Your task to perform on an android device: move a message to another label in the gmail app Image 0: 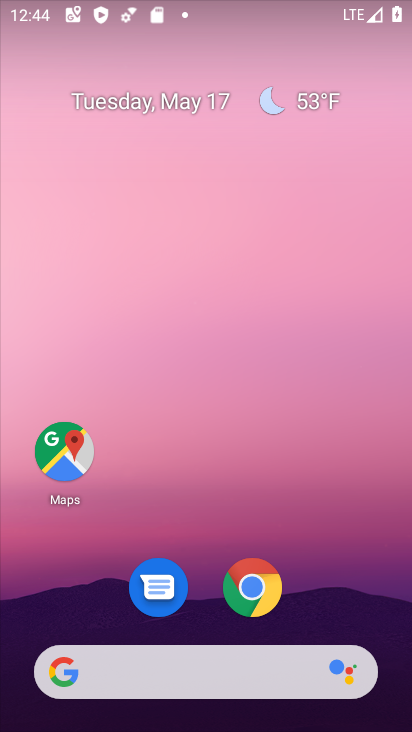
Step 0: drag from (219, 646) to (174, 19)
Your task to perform on an android device: move a message to another label in the gmail app Image 1: 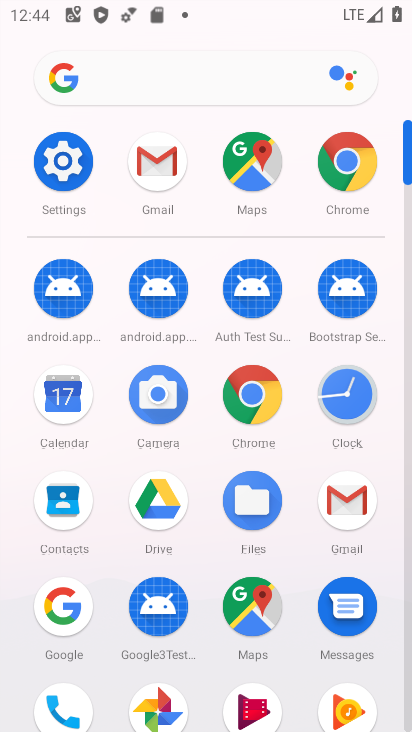
Step 1: click (343, 484)
Your task to perform on an android device: move a message to another label in the gmail app Image 2: 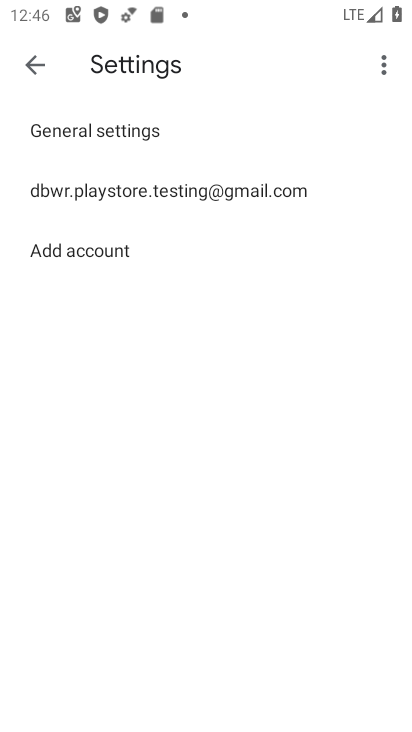
Step 2: click (35, 71)
Your task to perform on an android device: move a message to another label in the gmail app Image 3: 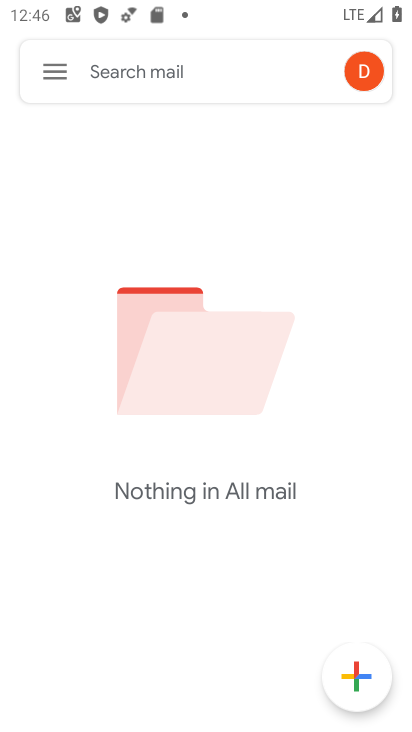
Step 3: task complete